Your task to perform on an android device: When is my next meeting? Image 0: 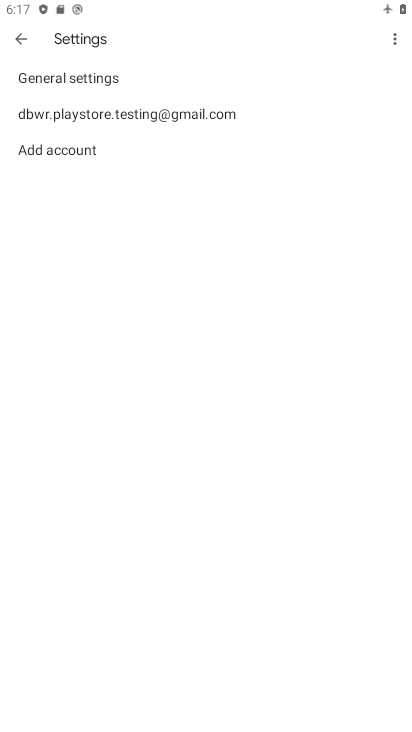
Step 0: press home button
Your task to perform on an android device: When is my next meeting? Image 1: 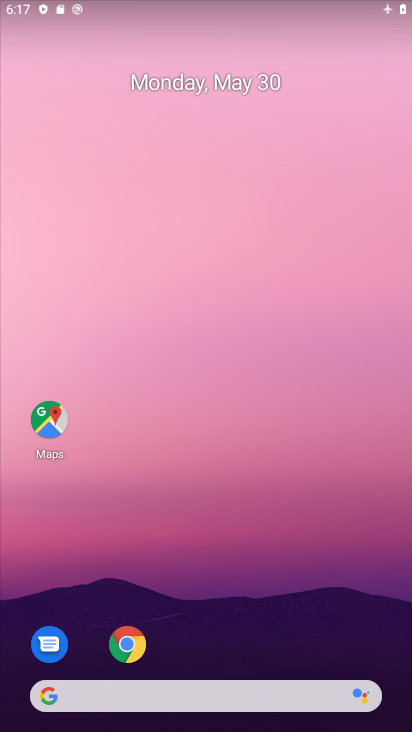
Step 1: drag from (215, 630) to (180, 53)
Your task to perform on an android device: When is my next meeting? Image 2: 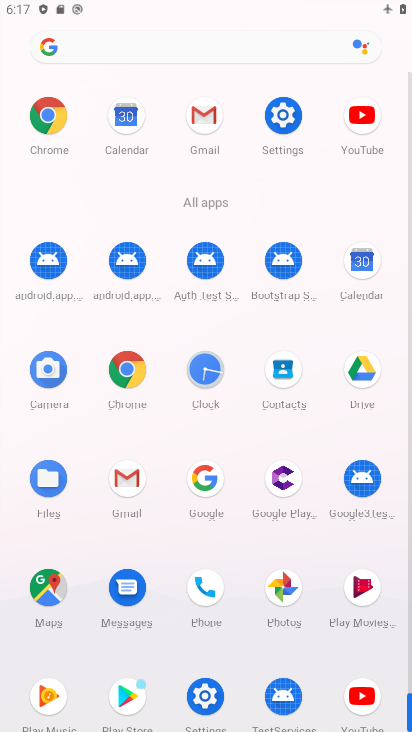
Step 2: click (372, 294)
Your task to perform on an android device: When is my next meeting? Image 3: 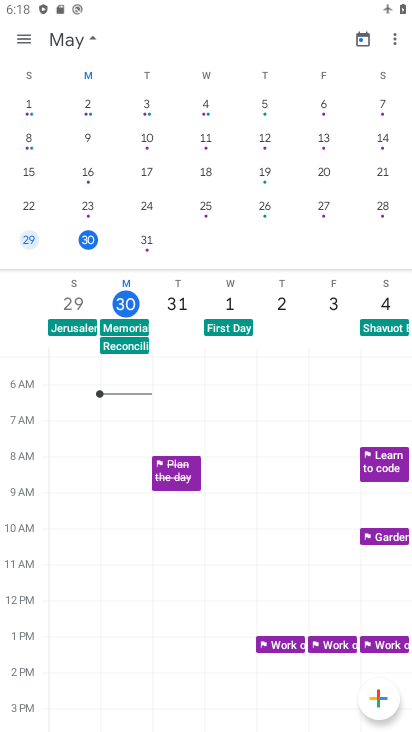
Step 3: click (79, 39)
Your task to perform on an android device: When is my next meeting? Image 4: 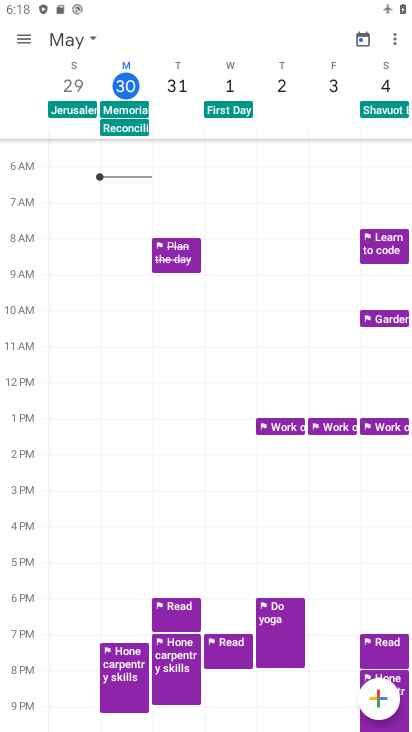
Step 4: click (32, 30)
Your task to perform on an android device: When is my next meeting? Image 5: 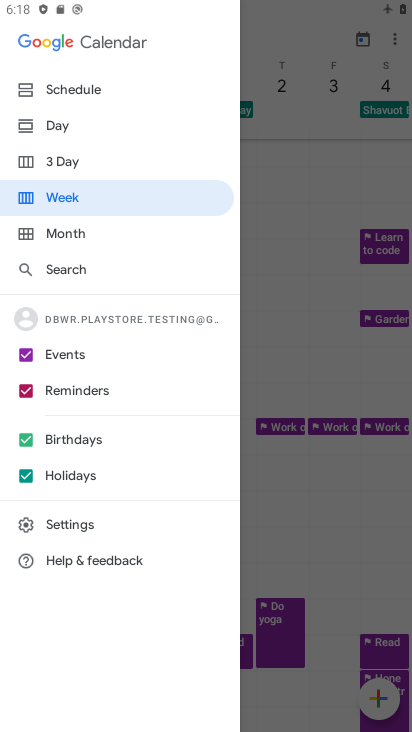
Step 5: click (55, 87)
Your task to perform on an android device: When is my next meeting? Image 6: 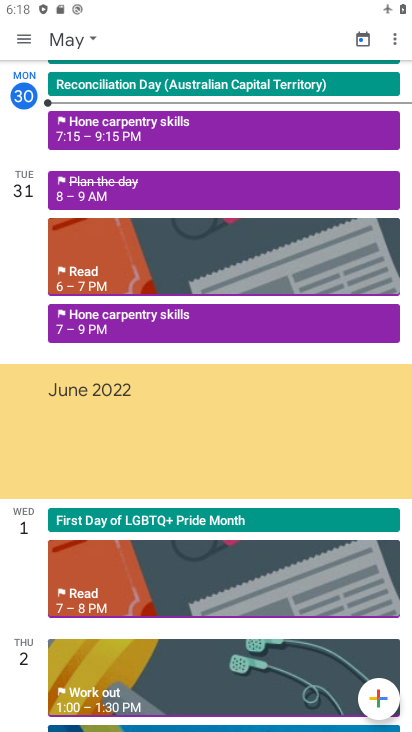
Step 6: task complete